Your task to perform on an android device: toggle pop-ups in chrome Image 0: 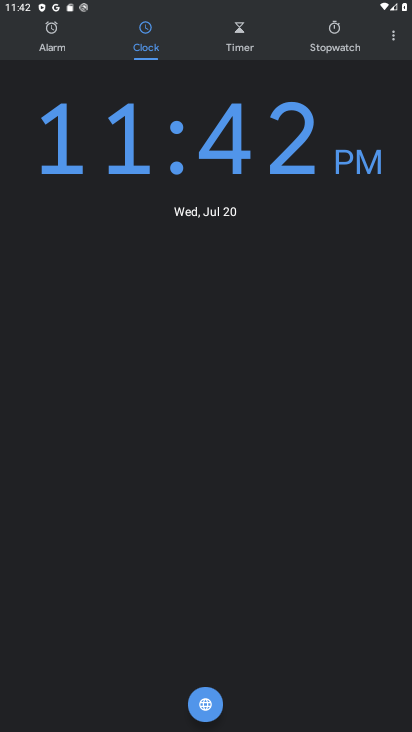
Step 0: press home button
Your task to perform on an android device: toggle pop-ups in chrome Image 1: 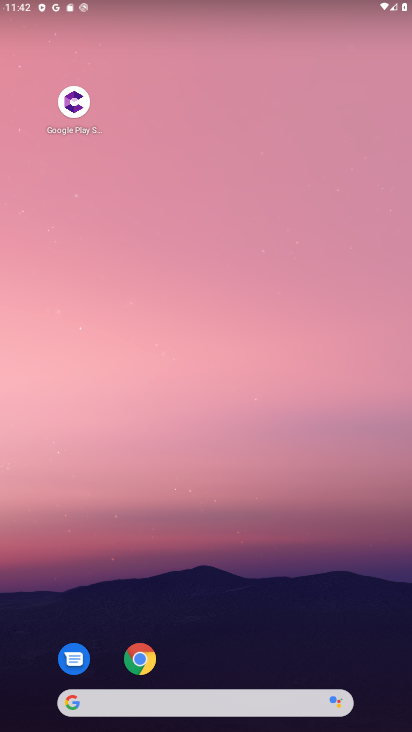
Step 1: click (152, 654)
Your task to perform on an android device: toggle pop-ups in chrome Image 2: 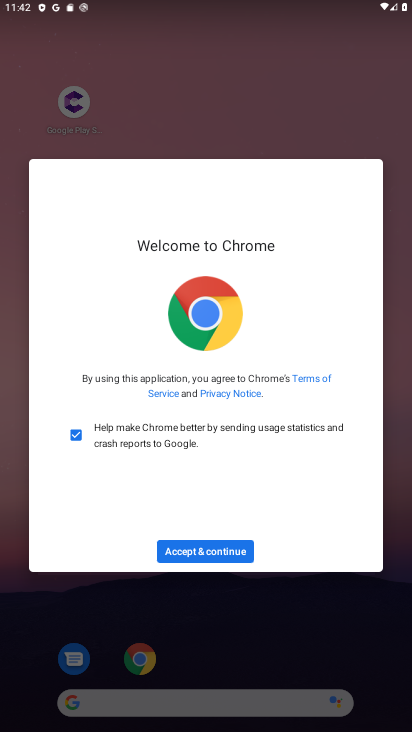
Step 2: click (228, 546)
Your task to perform on an android device: toggle pop-ups in chrome Image 3: 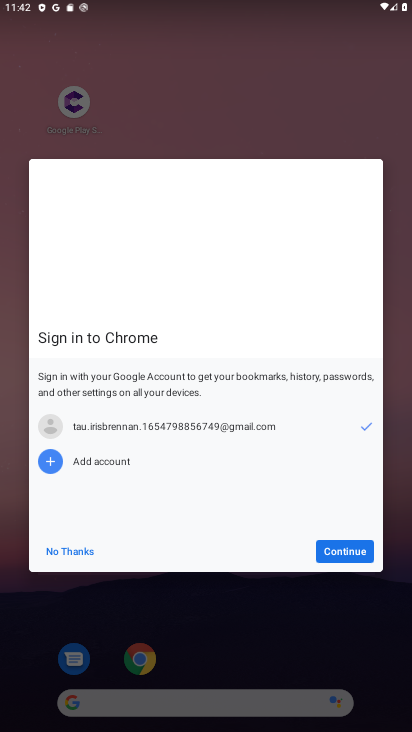
Step 3: click (228, 546)
Your task to perform on an android device: toggle pop-ups in chrome Image 4: 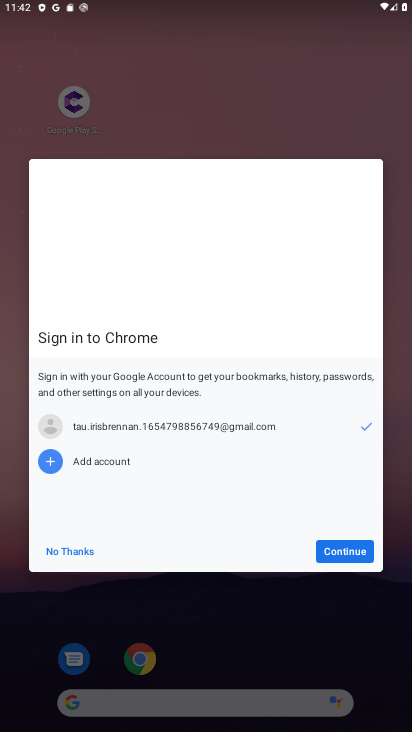
Step 4: click (345, 553)
Your task to perform on an android device: toggle pop-ups in chrome Image 5: 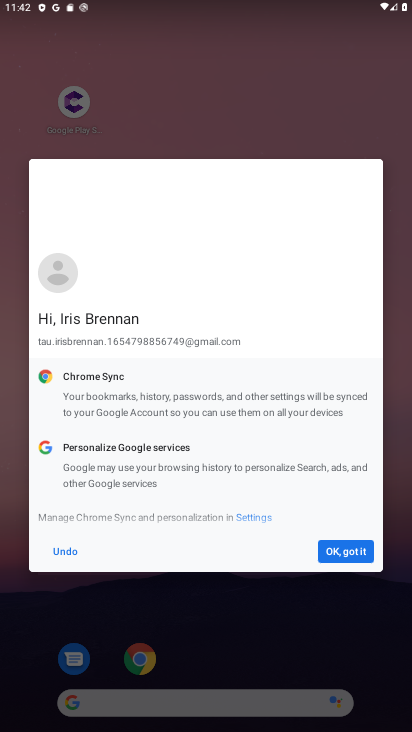
Step 5: click (345, 553)
Your task to perform on an android device: toggle pop-ups in chrome Image 6: 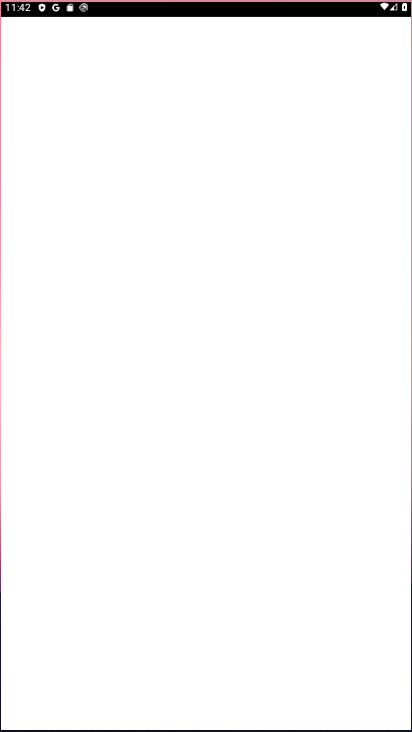
Step 6: click (345, 553)
Your task to perform on an android device: toggle pop-ups in chrome Image 7: 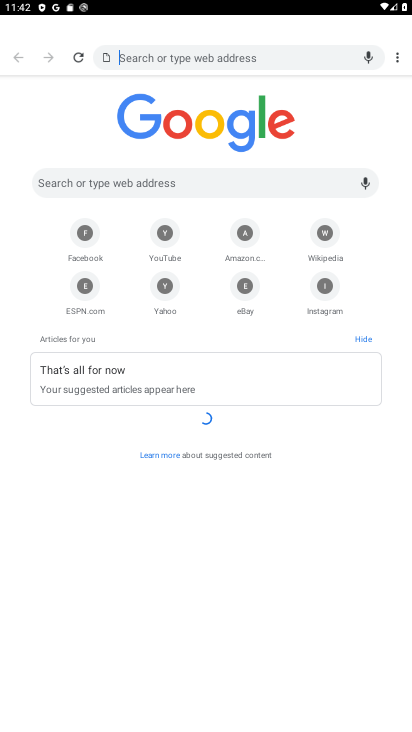
Step 7: click (406, 63)
Your task to perform on an android device: toggle pop-ups in chrome Image 8: 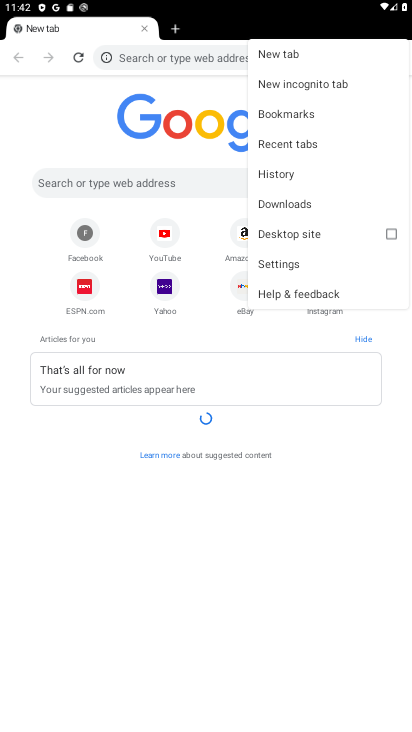
Step 8: click (258, 268)
Your task to perform on an android device: toggle pop-ups in chrome Image 9: 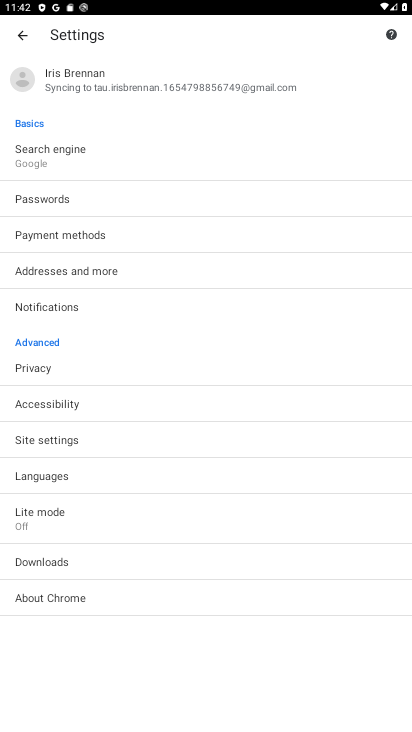
Step 9: click (82, 442)
Your task to perform on an android device: toggle pop-ups in chrome Image 10: 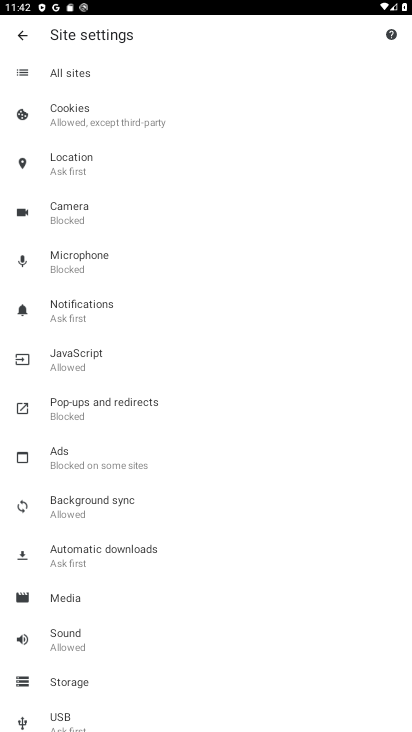
Step 10: click (128, 416)
Your task to perform on an android device: toggle pop-ups in chrome Image 11: 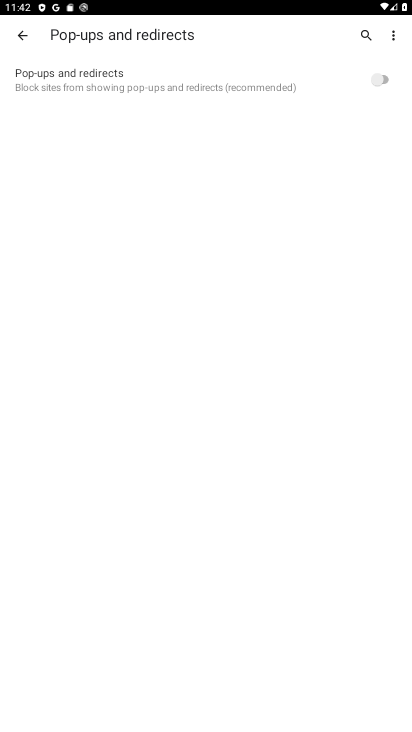
Step 11: click (382, 80)
Your task to perform on an android device: toggle pop-ups in chrome Image 12: 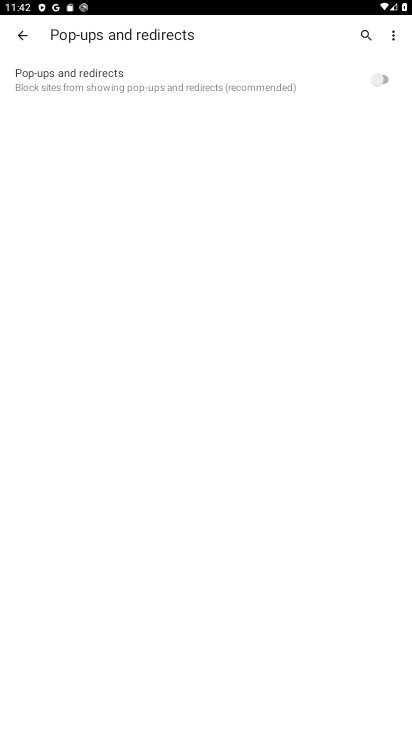
Step 12: click (382, 80)
Your task to perform on an android device: toggle pop-ups in chrome Image 13: 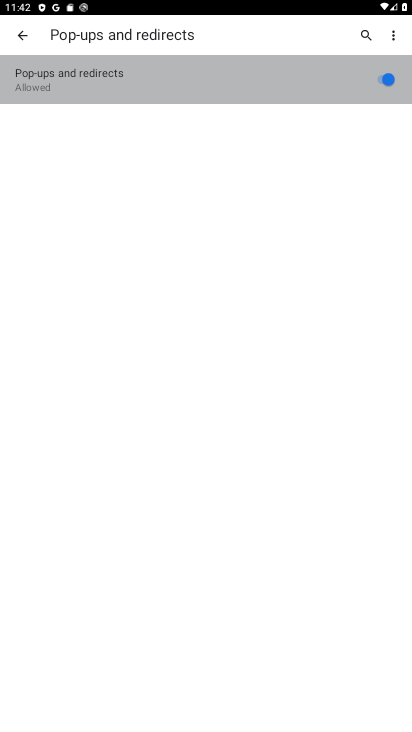
Step 13: click (382, 80)
Your task to perform on an android device: toggle pop-ups in chrome Image 14: 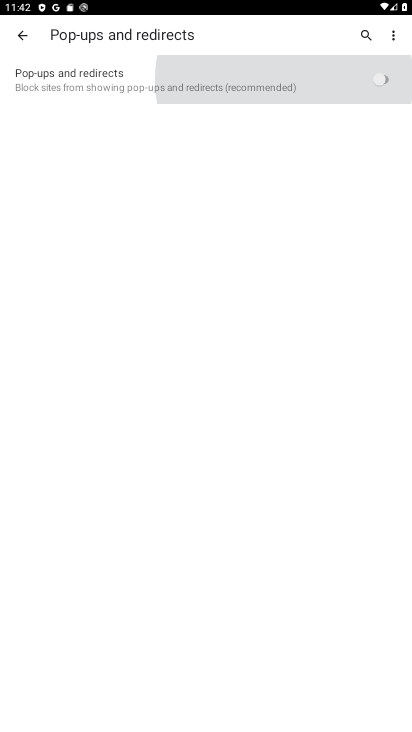
Step 14: click (382, 80)
Your task to perform on an android device: toggle pop-ups in chrome Image 15: 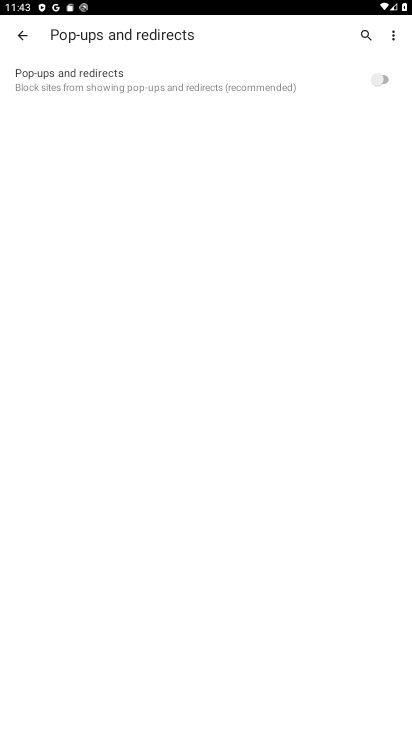
Step 15: task complete